Your task to perform on an android device: move a message to another label in the gmail app Image 0: 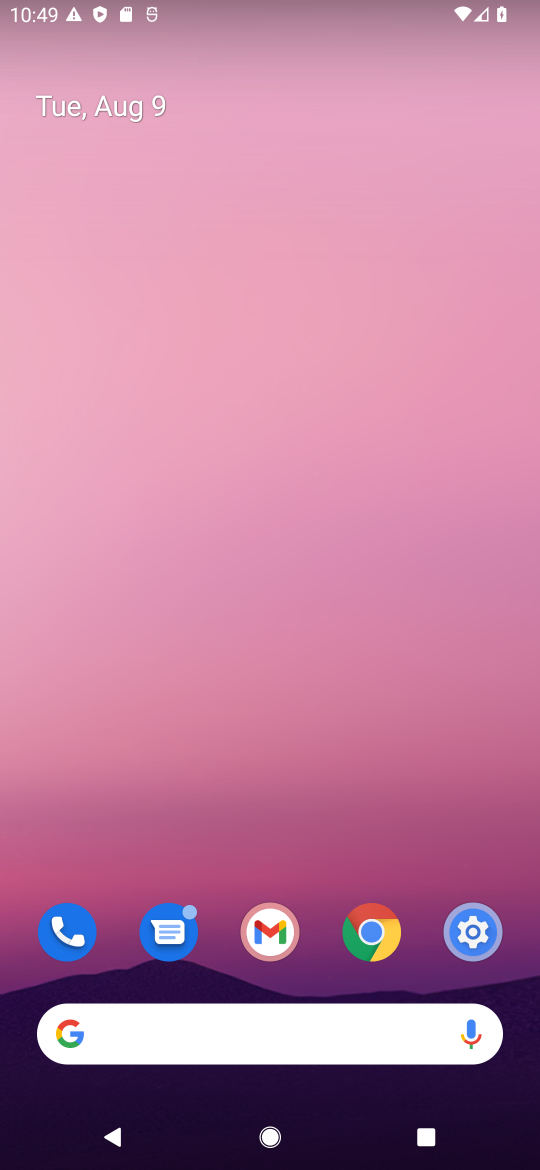
Step 0: drag from (246, 837) to (330, 22)
Your task to perform on an android device: move a message to another label in the gmail app Image 1: 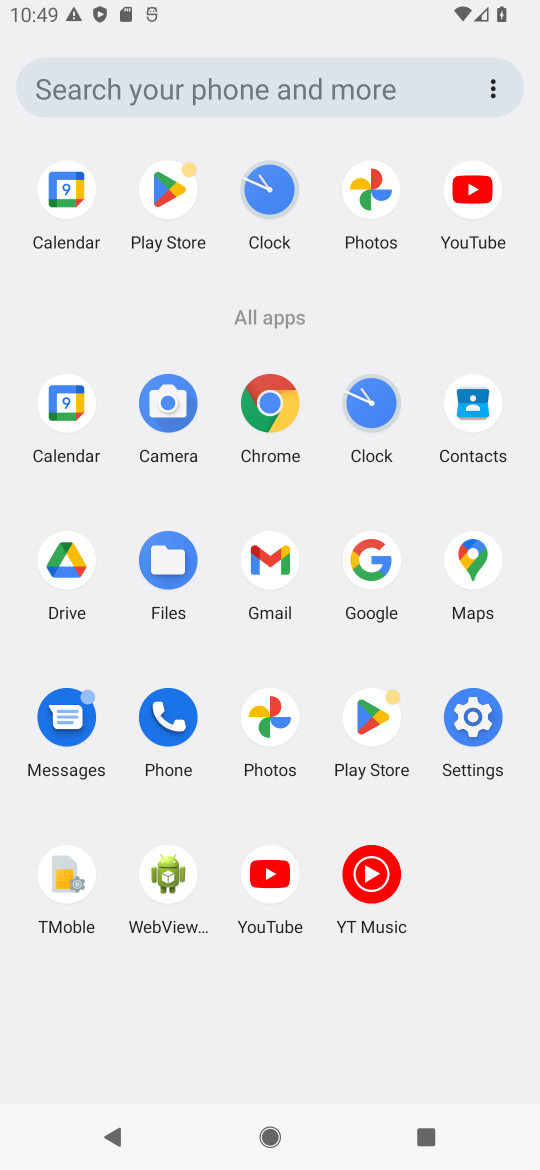
Step 1: click (261, 557)
Your task to perform on an android device: move a message to another label in the gmail app Image 2: 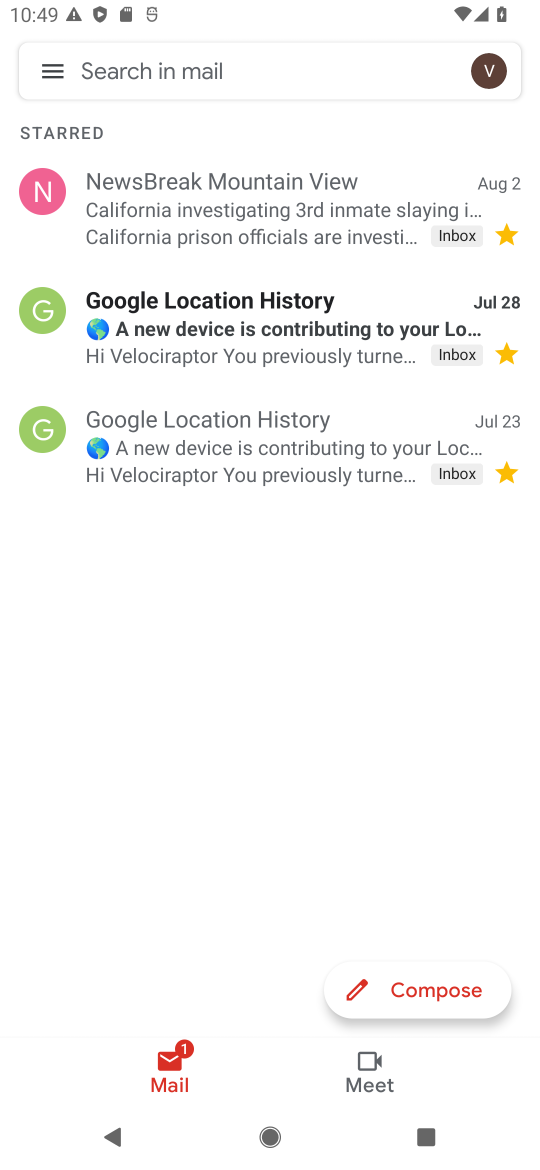
Step 2: click (44, 186)
Your task to perform on an android device: move a message to another label in the gmail app Image 3: 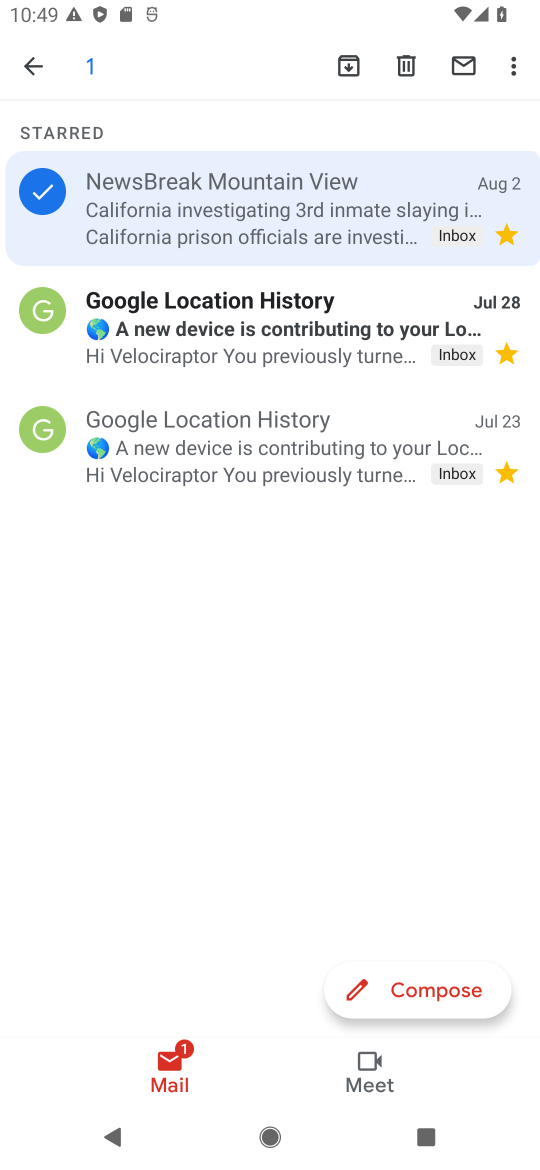
Step 3: click (514, 61)
Your task to perform on an android device: move a message to another label in the gmail app Image 4: 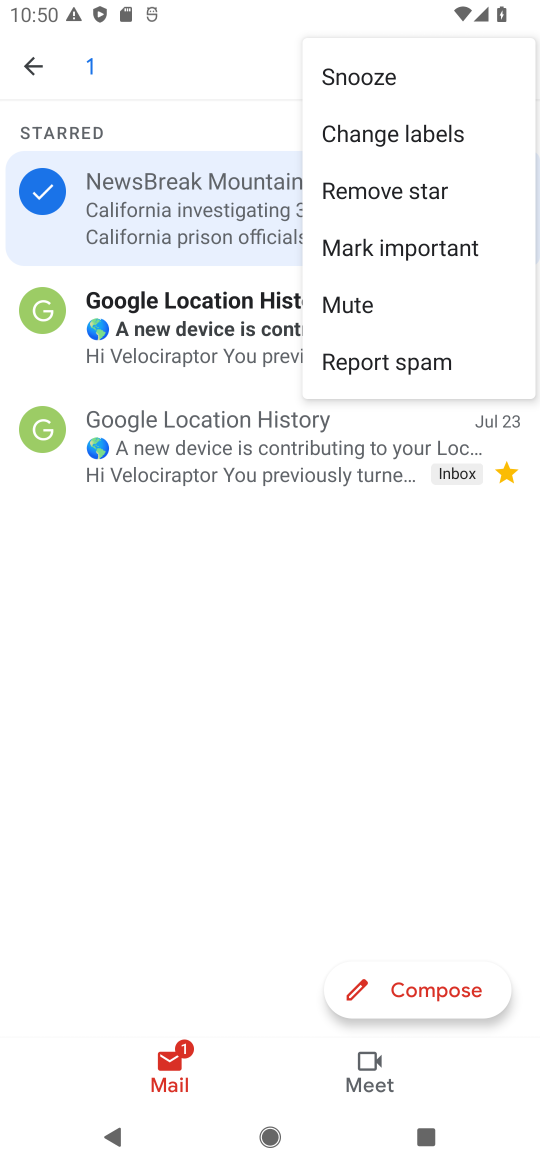
Step 4: click (404, 134)
Your task to perform on an android device: move a message to another label in the gmail app Image 5: 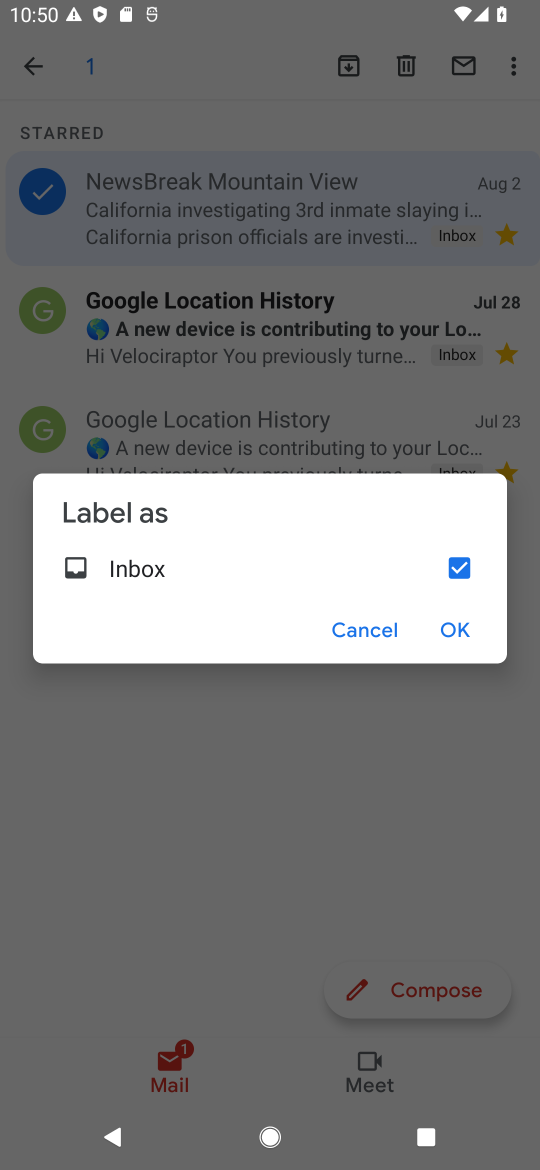
Step 5: click (450, 564)
Your task to perform on an android device: move a message to another label in the gmail app Image 6: 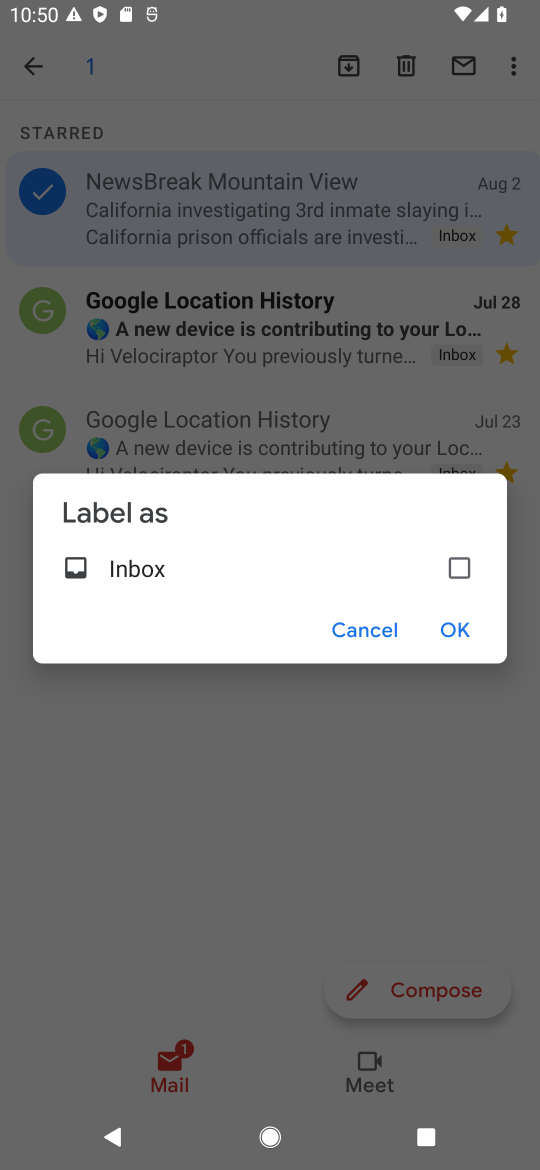
Step 6: click (459, 632)
Your task to perform on an android device: move a message to another label in the gmail app Image 7: 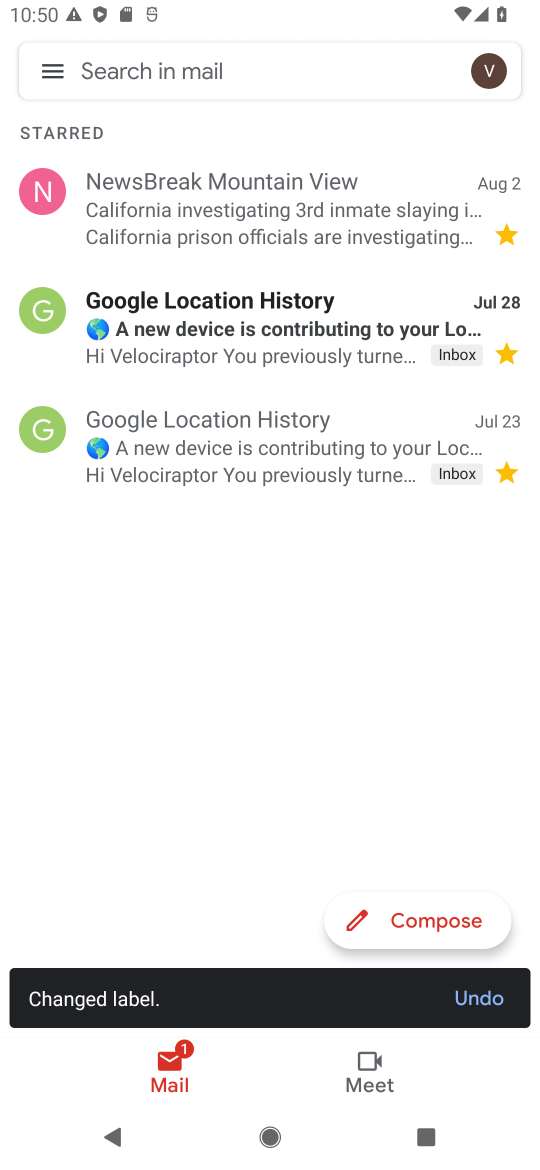
Step 7: task complete